Your task to perform on an android device: turn off notifications in google photos Image 0: 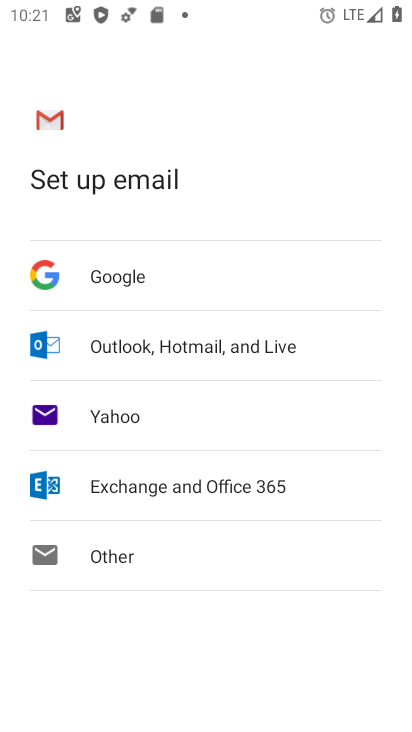
Step 0: press home button
Your task to perform on an android device: turn off notifications in google photos Image 1: 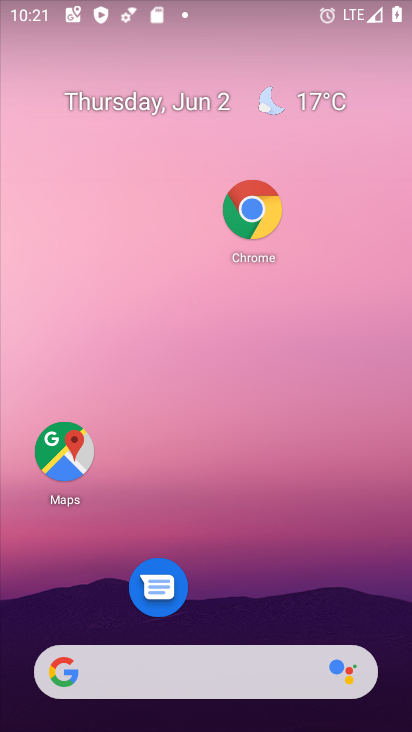
Step 1: drag from (201, 627) to (190, 154)
Your task to perform on an android device: turn off notifications in google photos Image 2: 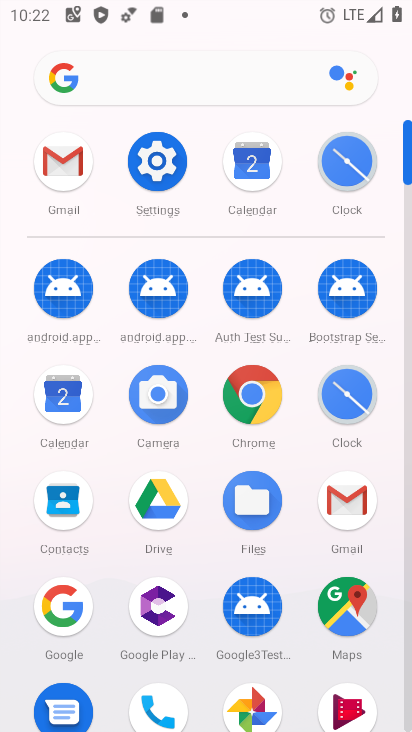
Step 2: click (248, 705)
Your task to perform on an android device: turn off notifications in google photos Image 3: 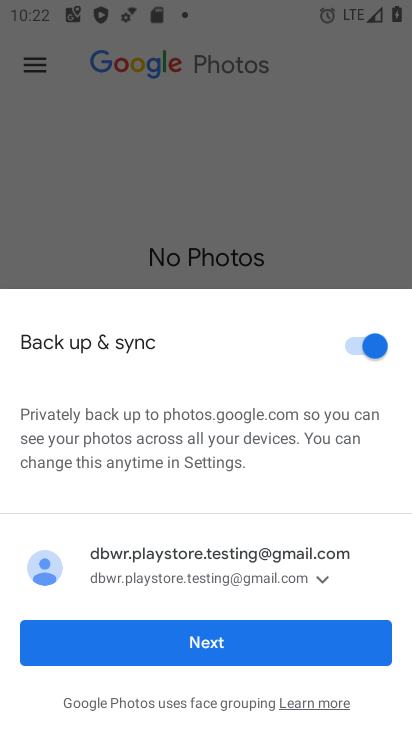
Step 3: click (207, 644)
Your task to perform on an android device: turn off notifications in google photos Image 4: 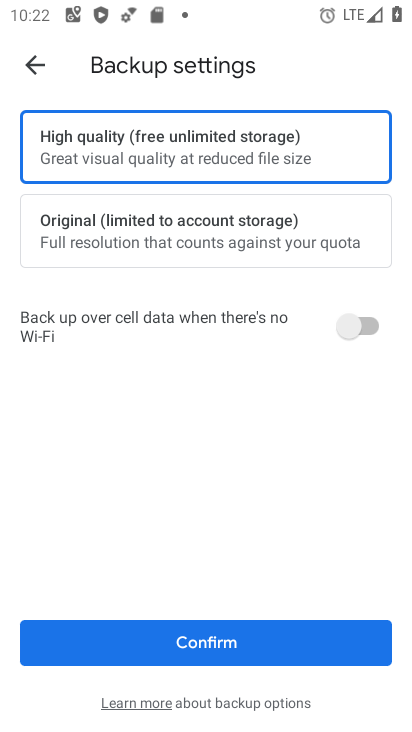
Step 4: click (36, 66)
Your task to perform on an android device: turn off notifications in google photos Image 5: 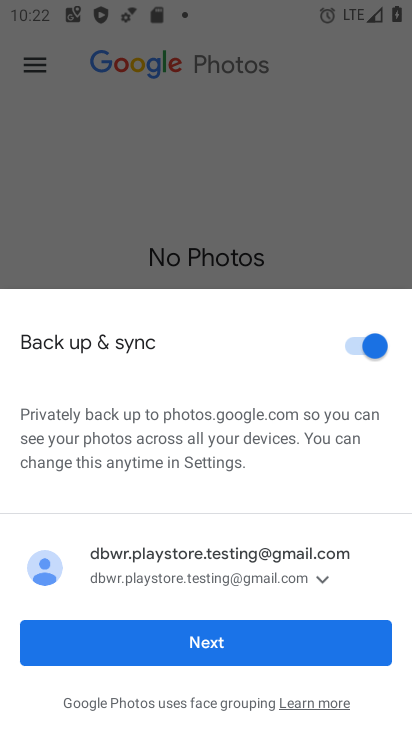
Step 5: click (208, 633)
Your task to perform on an android device: turn off notifications in google photos Image 6: 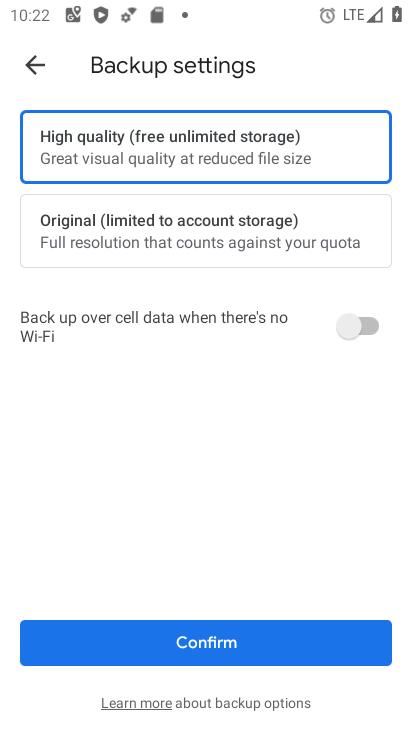
Step 6: click (243, 652)
Your task to perform on an android device: turn off notifications in google photos Image 7: 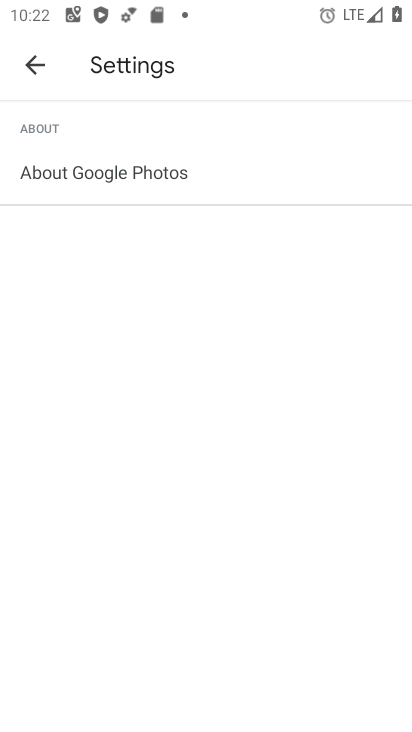
Step 7: click (33, 68)
Your task to perform on an android device: turn off notifications in google photos Image 8: 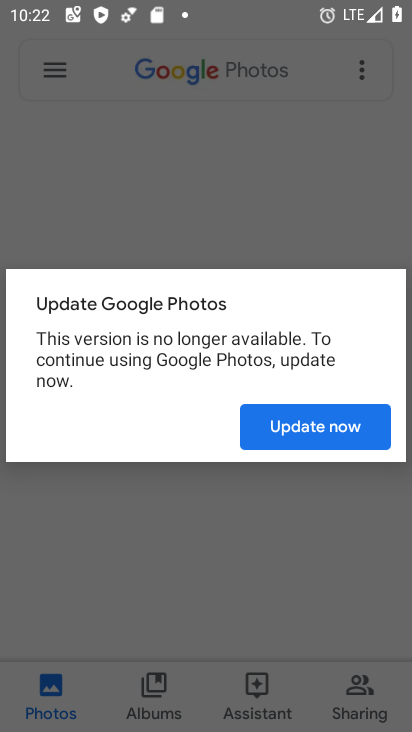
Step 8: click (47, 69)
Your task to perform on an android device: turn off notifications in google photos Image 9: 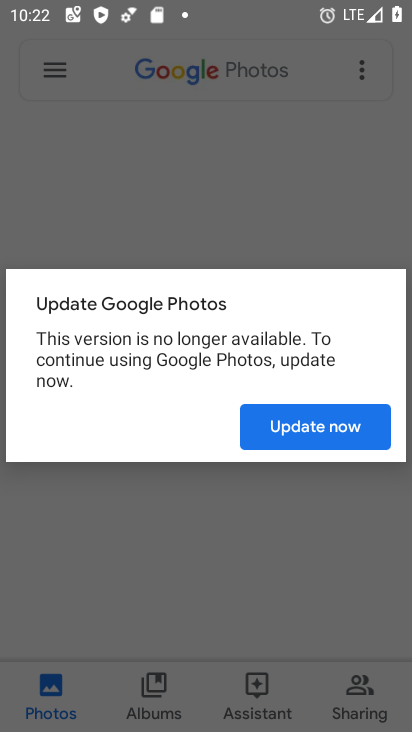
Step 9: click (328, 429)
Your task to perform on an android device: turn off notifications in google photos Image 10: 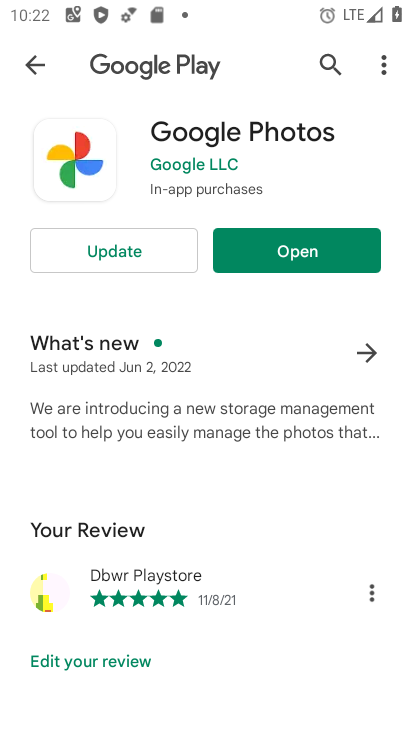
Step 10: click (114, 252)
Your task to perform on an android device: turn off notifications in google photos Image 11: 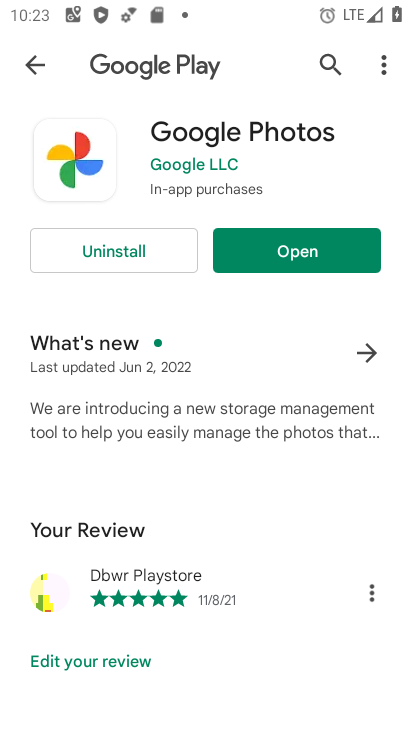
Step 11: click (300, 252)
Your task to perform on an android device: turn off notifications in google photos Image 12: 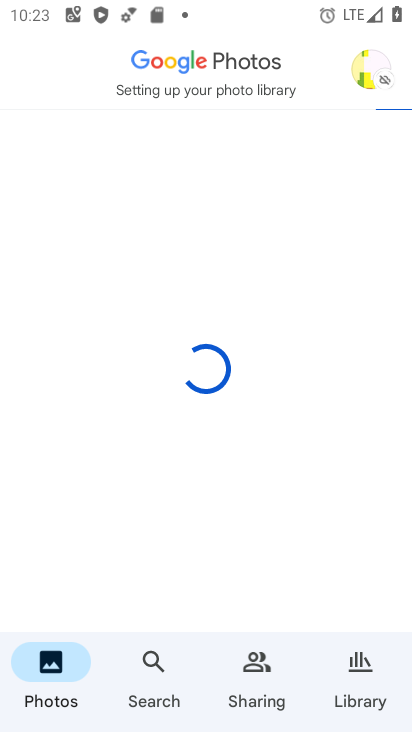
Step 12: click (363, 69)
Your task to perform on an android device: turn off notifications in google photos Image 13: 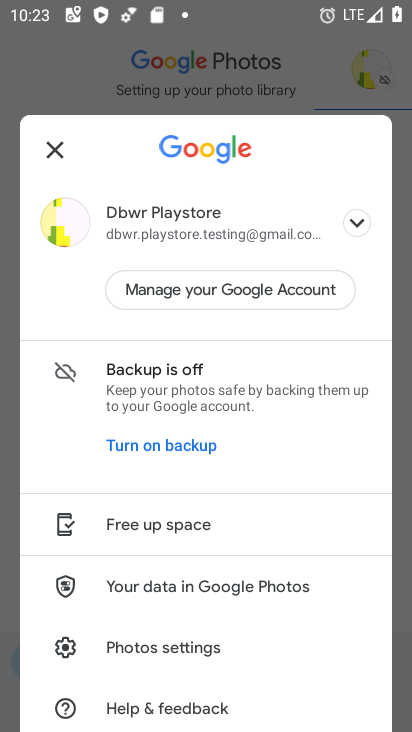
Step 13: click (203, 649)
Your task to perform on an android device: turn off notifications in google photos Image 14: 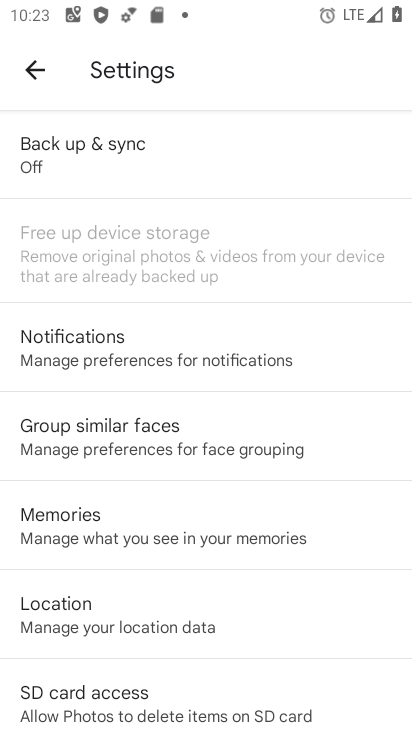
Step 14: click (115, 351)
Your task to perform on an android device: turn off notifications in google photos Image 15: 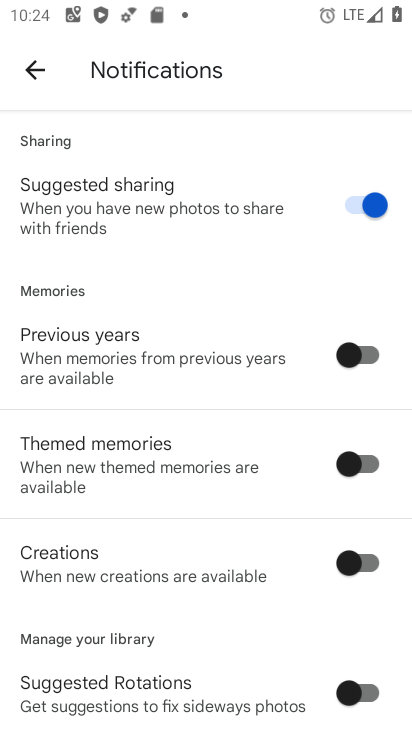
Step 15: drag from (256, 600) to (244, 167)
Your task to perform on an android device: turn off notifications in google photos Image 16: 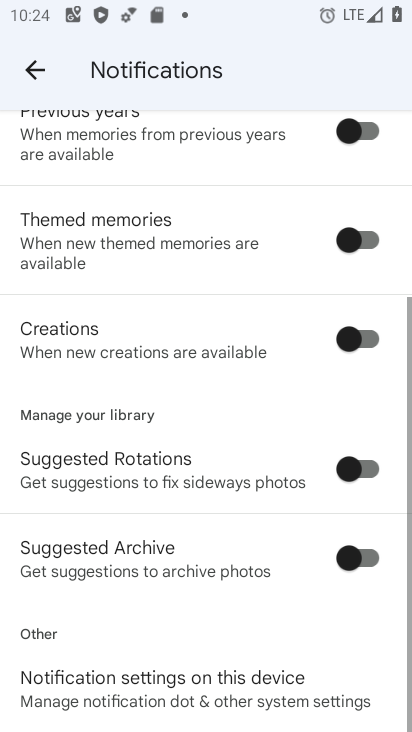
Step 16: click (226, 697)
Your task to perform on an android device: turn off notifications in google photos Image 17: 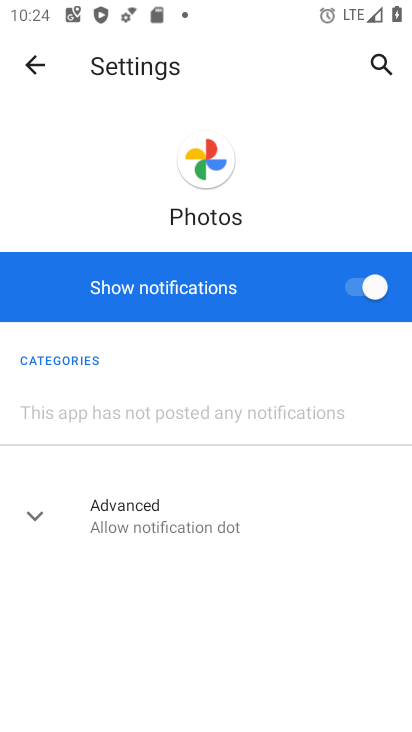
Step 17: click (359, 284)
Your task to perform on an android device: turn off notifications in google photos Image 18: 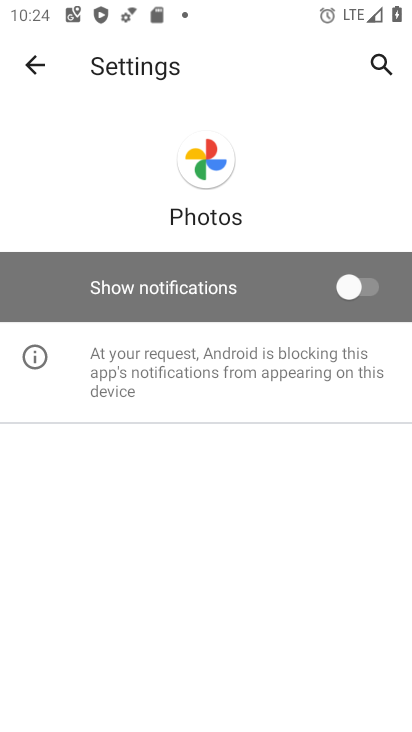
Step 18: task complete